Your task to perform on an android device: change the upload size in google photos Image 0: 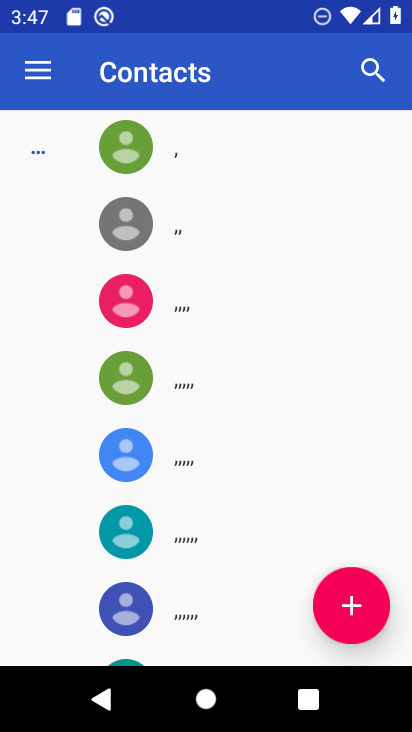
Step 0: press back button
Your task to perform on an android device: change the upload size in google photos Image 1: 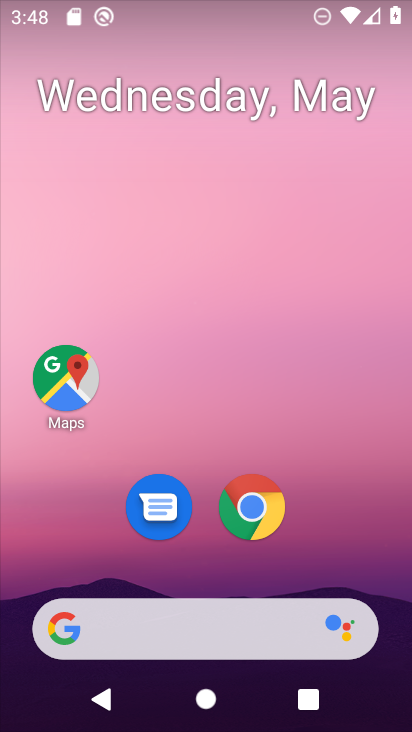
Step 1: drag from (193, 565) to (243, 54)
Your task to perform on an android device: change the upload size in google photos Image 2: 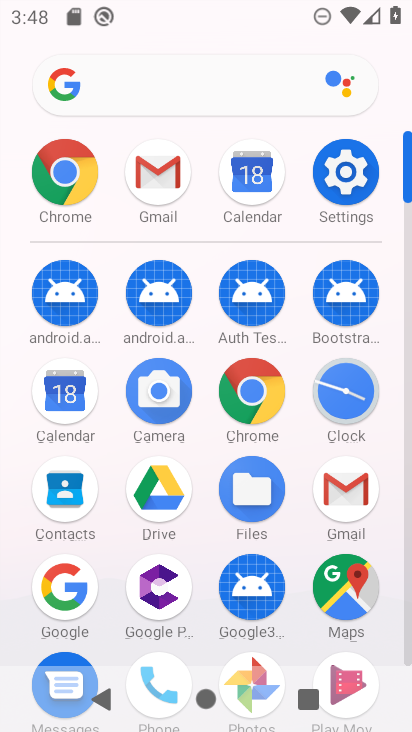
Step 2: drag from (173, 579) to (173, 319)
Your task to perform on an android device: change the upload size in google photos Image 3: 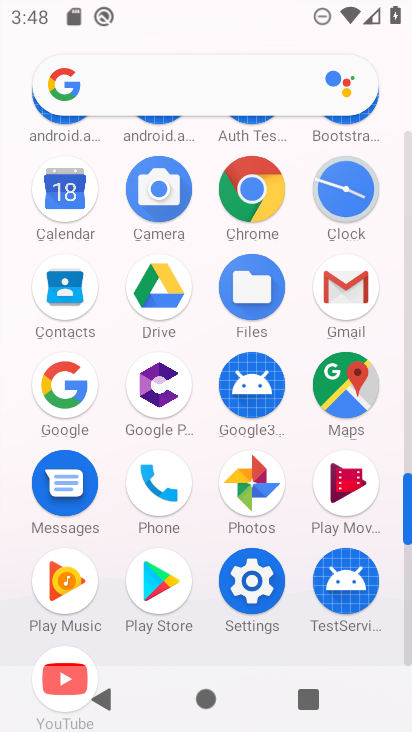
Step 3: click (260, 498)
Your task to perform on an android device: change the upload size in google photos Image 4: 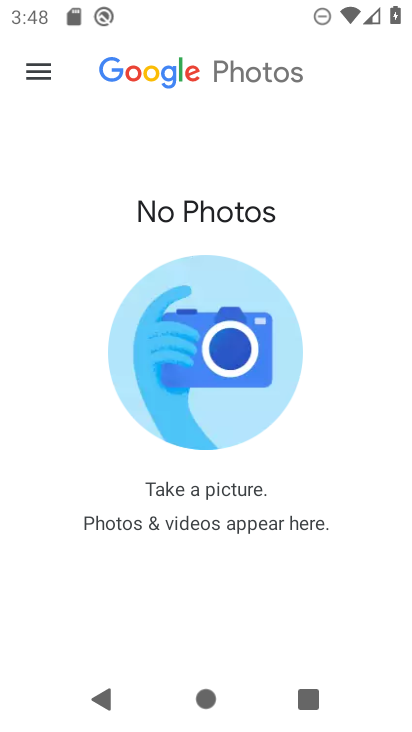
Step 4: click (29, 70)
Your task to perform on an android device: change the upload size in google photos Image 5: 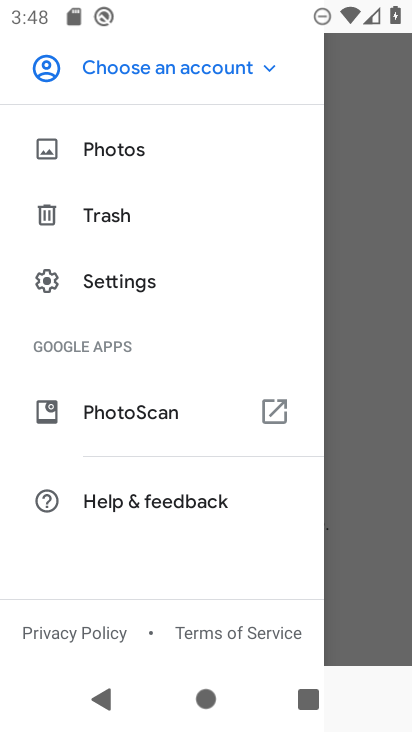
Step 5: drag from (117, 585) to (202, 494)
Your task to perform on an android device: change the upload size in google photos Image 6: 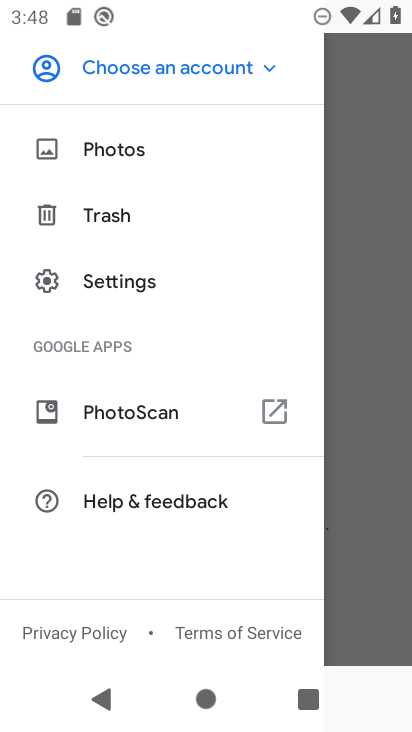
Step 6: click (120, 286)
Your task to perform on an android device: change the upload size in google photos Image 7: 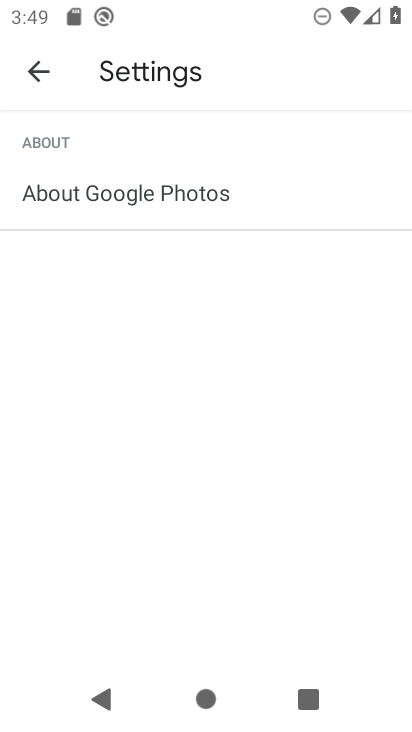
Step 7: task complete